Your task to perform on an android device: Open Maps and search for coffee Image 0: 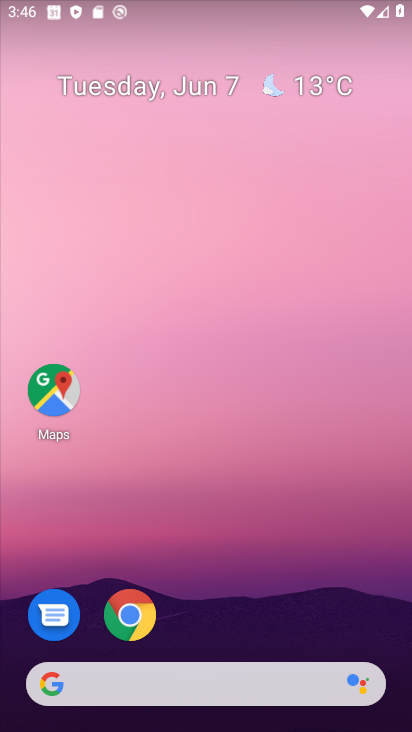
Step 0: click (64, 371)
Your task to perform on an android device: Open Maps and search for coffee Image 1: 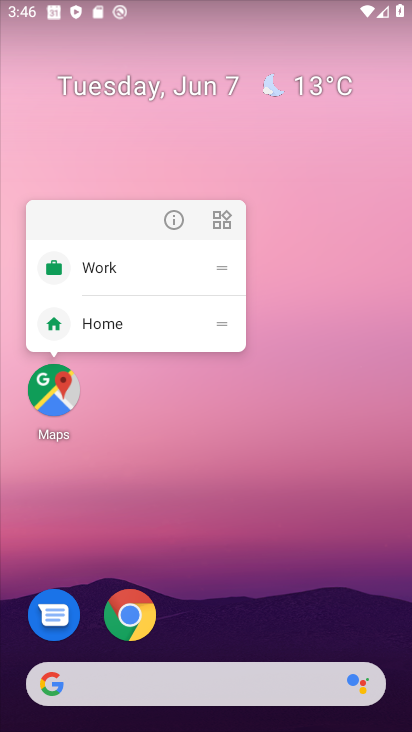
Step 1: click (64, 371)
Your task to perform on an android device: Open Maps and search for coffee Image 2: 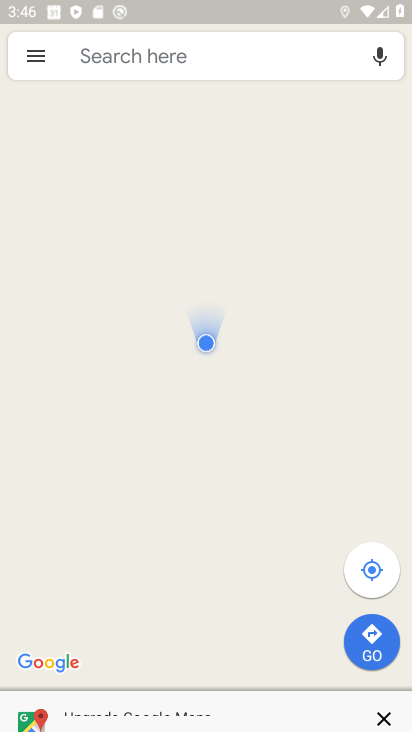
Step 2: click (255, 63)
Your task to perform on an android device: Open Maps and search for coffee Image 3: 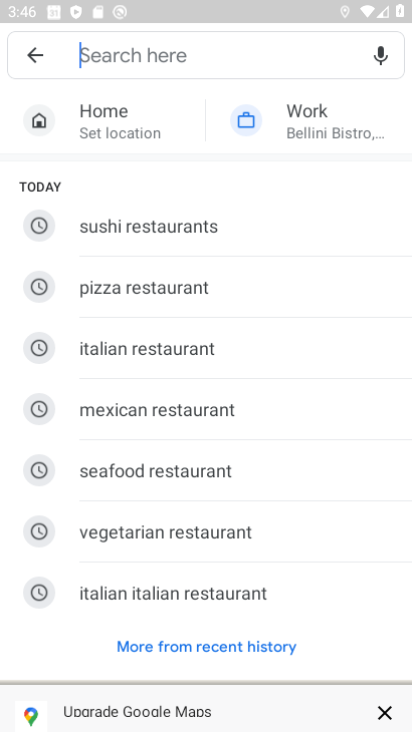
Step 3: type "coffee"
Your task to perform on an android device: Open Maps and search for coffee Image 4: 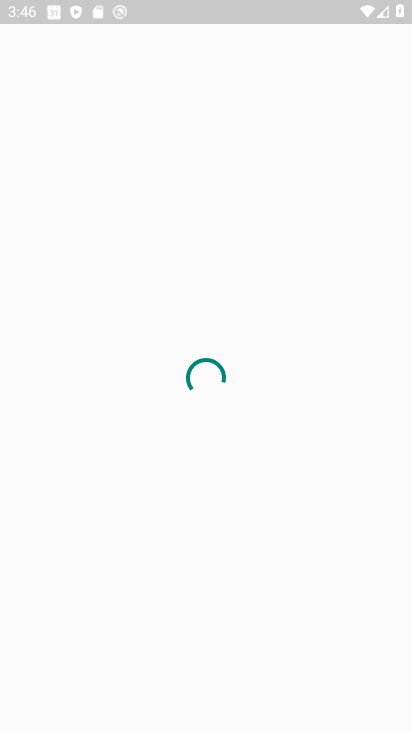
Step 4: click (226, 417)
Your task to perform on an android device: Open Maps and search for coffee Image 5: 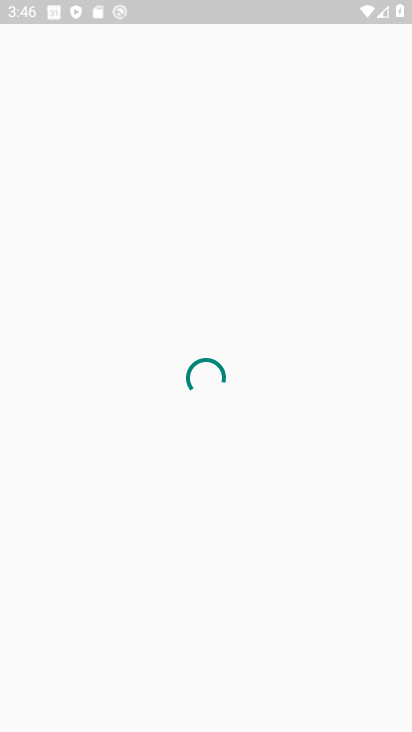
Step 5: press back button
Your task to perform on an android device: Open Maps and search for coffee Image 6: 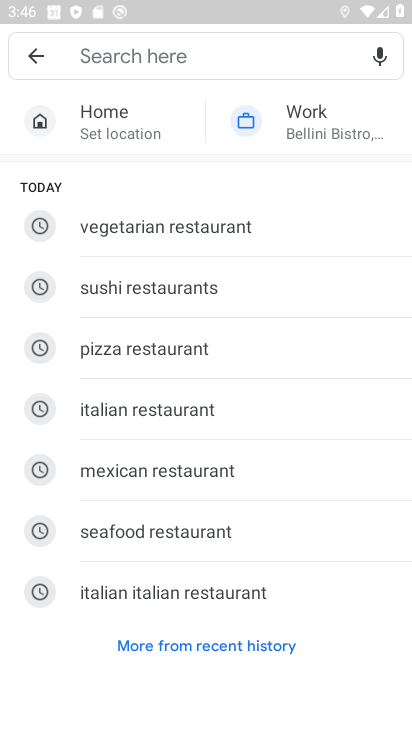
Step 6: click (187, 57)
Your task to perform on an android device: Open Maps and search for coffee Image 7: 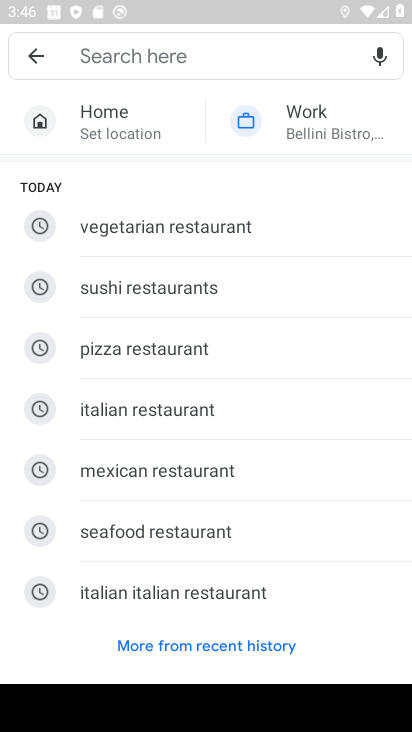
Step 7: type "coffee"
Your task to perform on an android device: Open Maps and search for coffee Image 8: 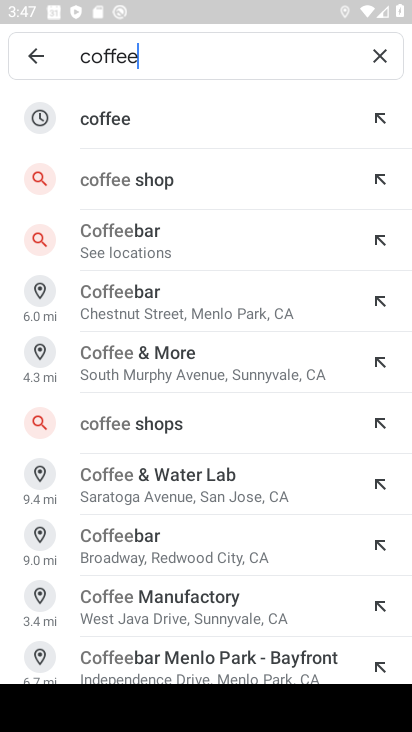
Step 8: click (131, 120)
Your task to perform on an android device: Open Maps and search for coffee Image 9: 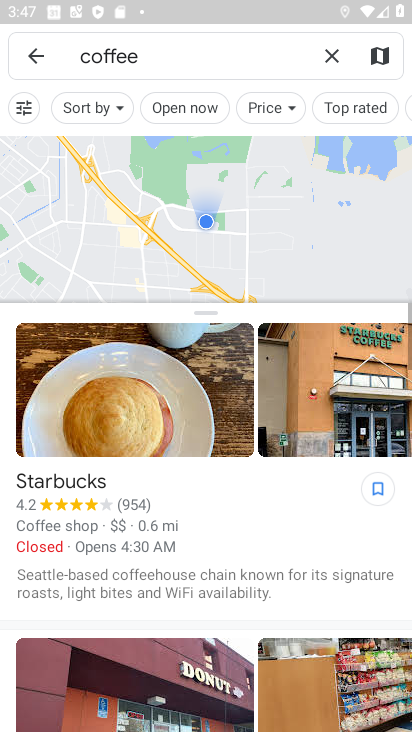
Step 9: task complete